Your task to perform on an android device: delete browsing data in the chrome app Image 0: 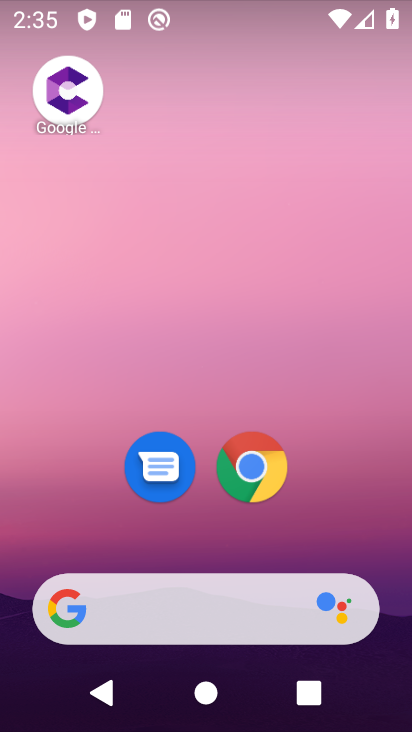
Step 0: click (277, 481)
Your task to perform on an android device: delete browsing data in the chrome app Image 1: 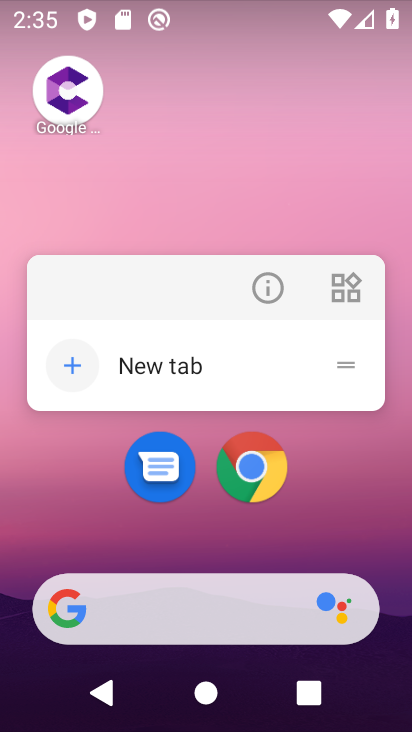
Step 1: click (268, 481)
Your task to perform on an android device: delete browsing data in the chrome app Image 2: 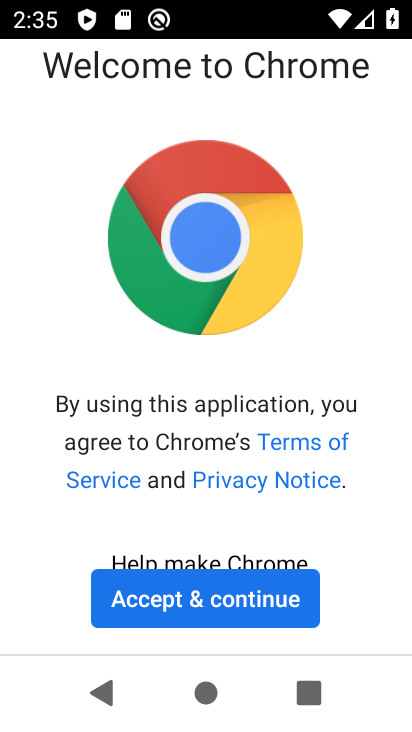
Step 2: click (214, 588)
Your task to perform on an android device: delete browsing data in the chrome app Image 3: 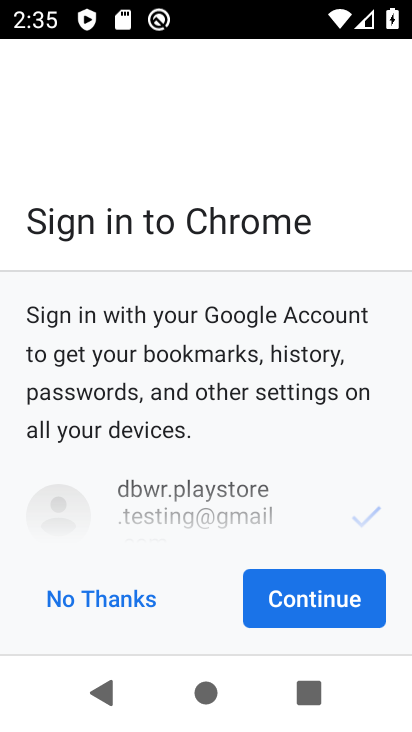
Step 3: click (284, 580)
Your task to perform on an android device: delete browsing data in the chrome app Image 4: 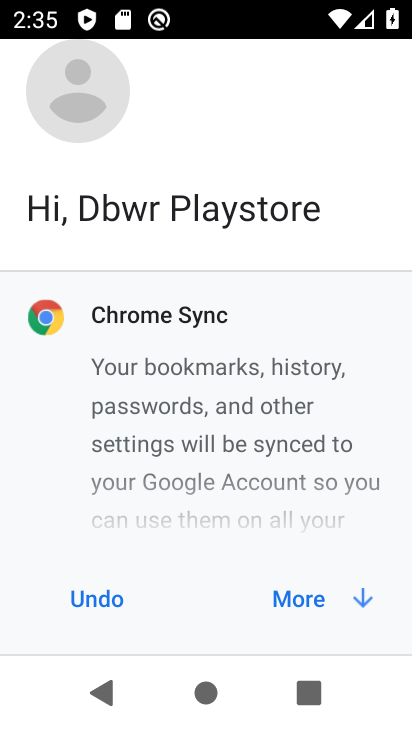
Step 4: click (322, 611)
Your task to perform on an android device: delete browsing data in the chrome app Image 5: 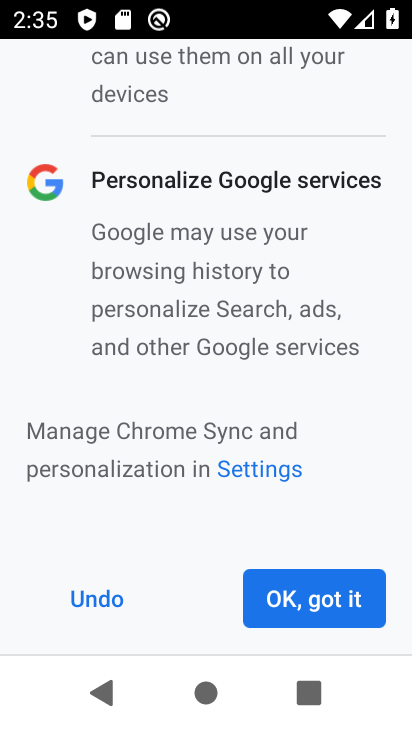
Step 5: click (322, 611)
Your task to perform on an android device: delete browsing data in the chrome app Image 6: 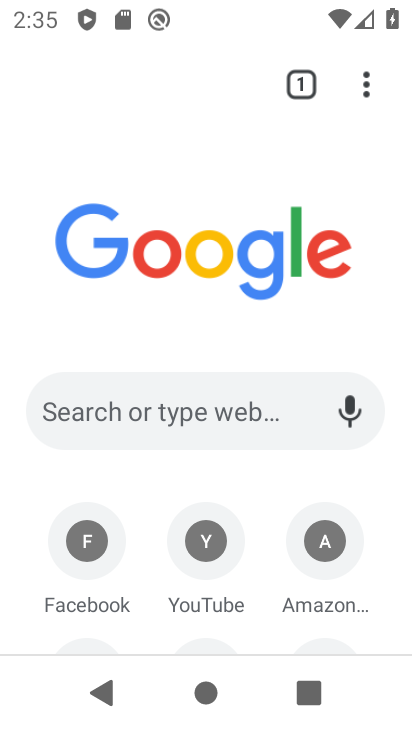
Step 6: drag from (394, 82) to (225, 526)
Your task to perform on an android device: delete browsing data in the chrome app Image 7: 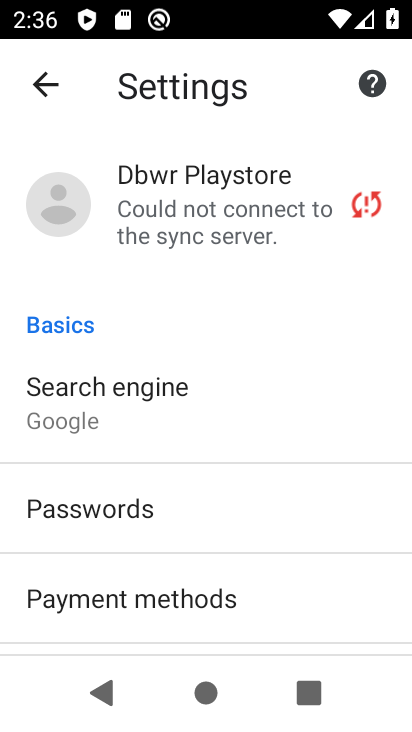
Step 7: drag from (156, 656) to (308, 269)
Your task to perform on an android device: delete browsing data in the chrome app Image 8: 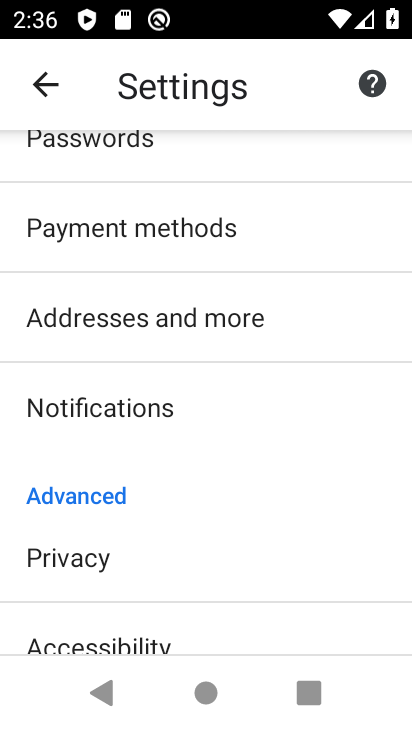
Step 8: drag from (219, 590) to (299, 292)
Your task to perform on an android device: delete browsing data in the chrome app Image 9: 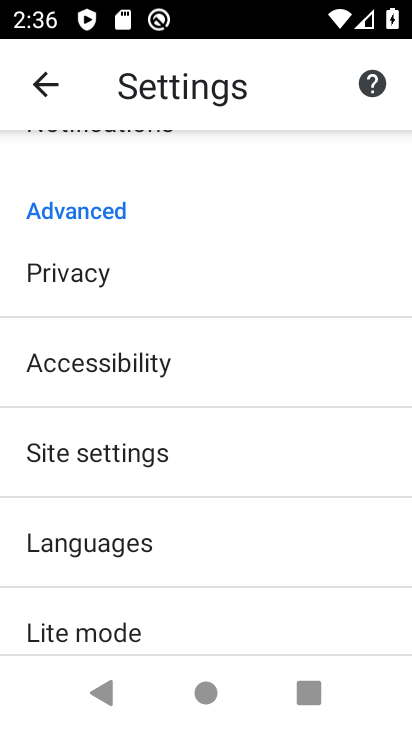
Step 9: click (183, 269)
Your task to perform on an android device: delete browsing data in the chrome app Image 10: 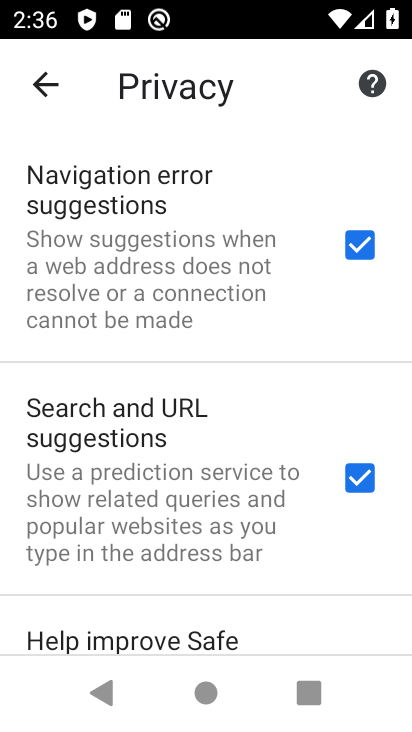
Step 10: drag from (139, 613) to (269, 129)
Your task to perform on an android device: delete browsing data in the chrome app Image 11: 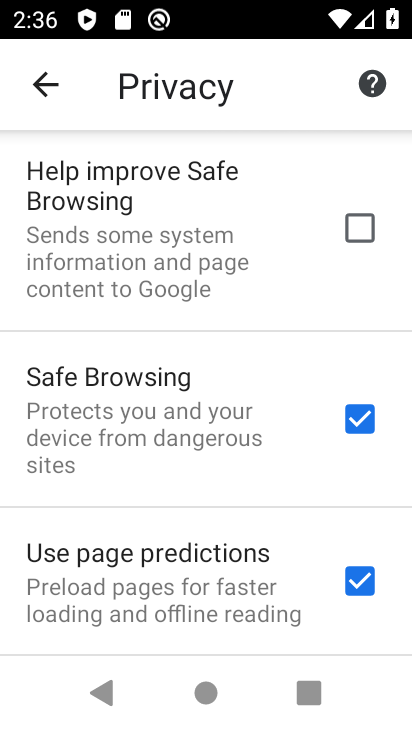
Step 11: drag from (143, 540) to (230, 165)
Your task to perform on an android device: delete browsing data in the chrome app Image 12: 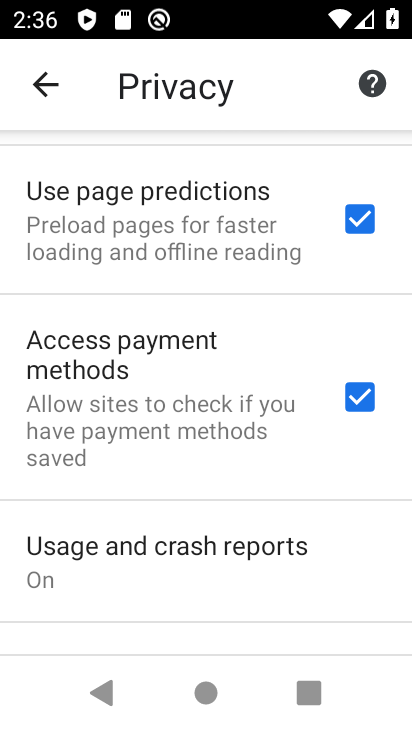
Step 12: drag from (128, 610) to (250, 137)
Your task to perform on an android device: delete browsing data in the chrome app Image 13: 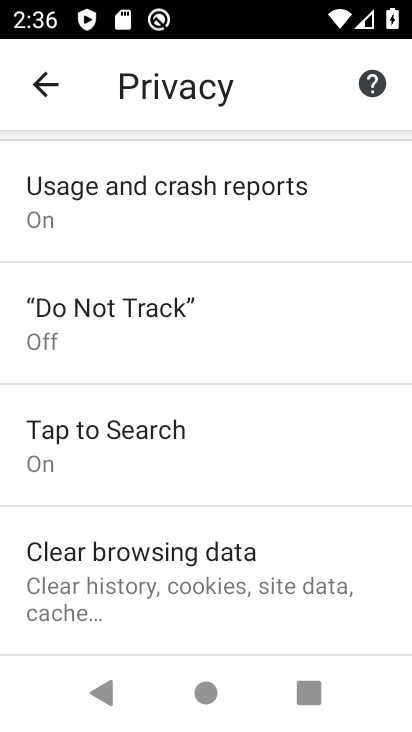
Step 13: click (112, 575)
Your task to perform on an android device: delete browsing data in the chrome app Image 14: 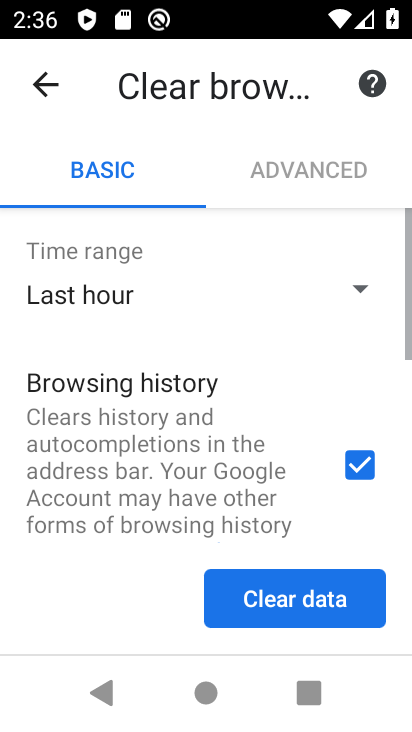
Step 14: click (290, 611)
Your task to perform on an android device: delete browsing data in the chrome app Image 15: 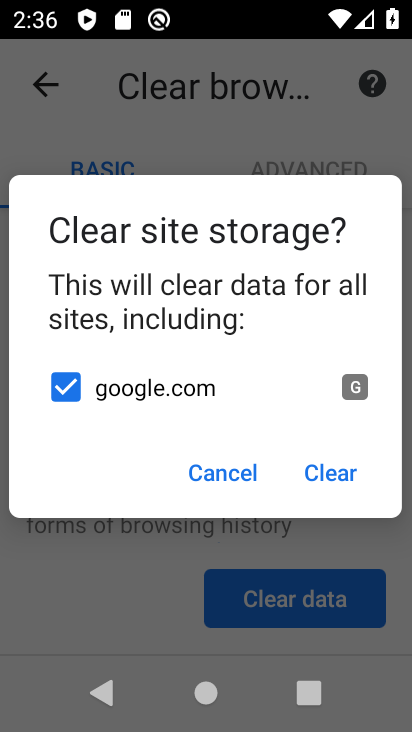
Step 15: click (331, 486)
Your task to perform on an android device: delete browsing data in the chrome app Image 16: 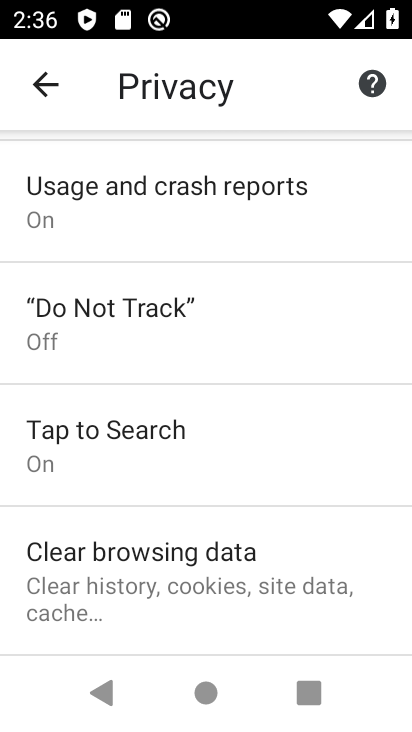
Step 16: task complete